Your task to perform on an android device: Go to calendar. Show me events next week Image 0: 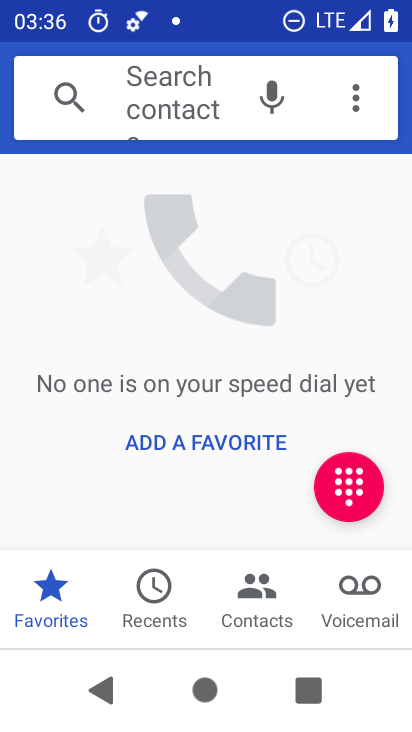
Step 0: drag from (187, 535) to (187, 420)
Your task to perform on an android device: Go to calendar. Show me events next week Image 1: 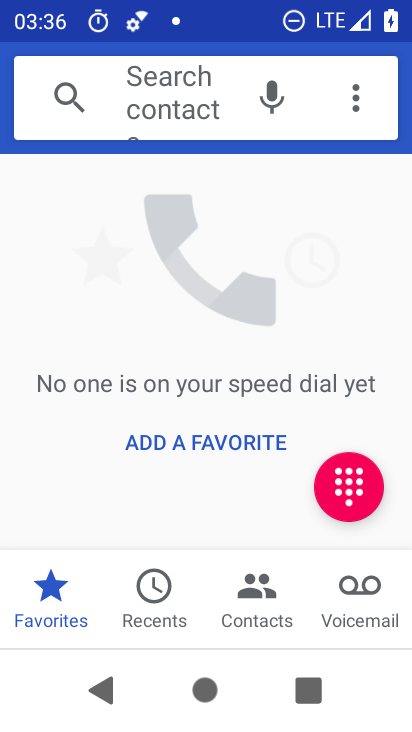
Step 1: press home button
Your task to perform on an android device: Go to calendar. Show me events next week Image 2: 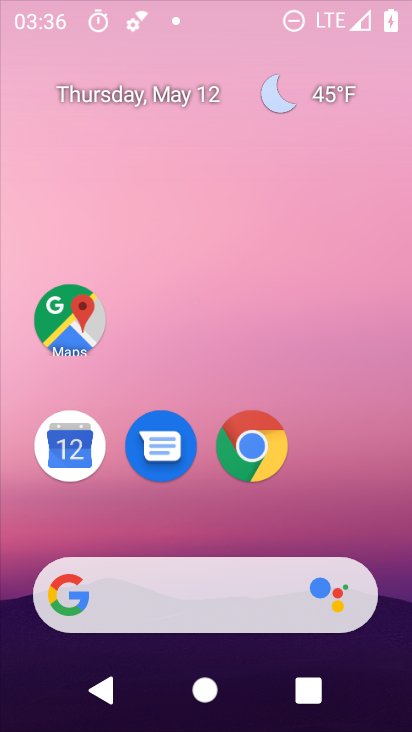
Step 2: drag from (184, 534) to (152, 135)
Your task to perform on an android device: Go to calendar. Show me events next week Image 3: 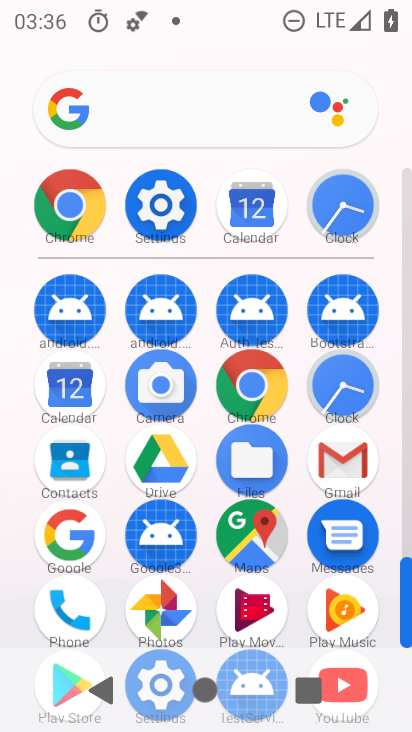
Step 3: click (68, 378)
Your task to perform on an android device: Go to calendar. Show me events next week Image 4: 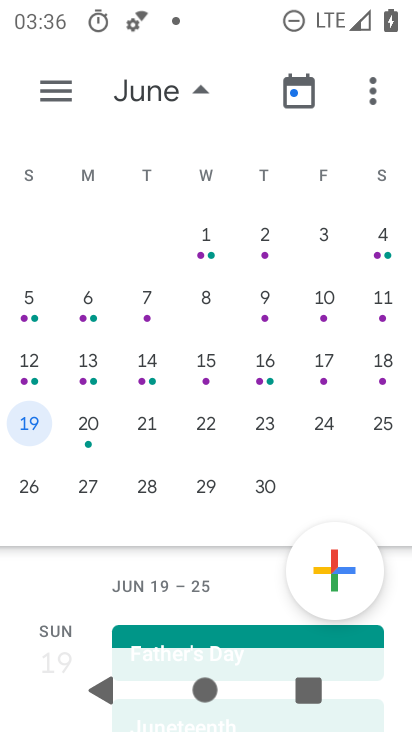
Step 4: drag from (231, 505) to (260, 202)
Your task to perform on an android device: Go to calendar. Show me events next week Image 5: 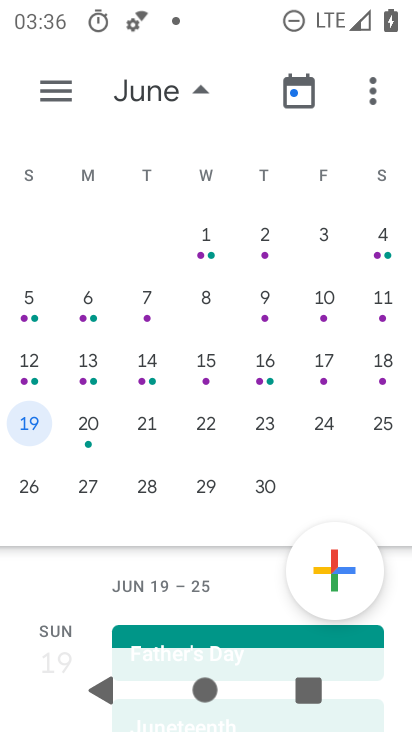
Step 5: drag from (223, 594) to (226, 300)
Your task to perform on an android device: Go to calendar. Show me events next week Image 6: 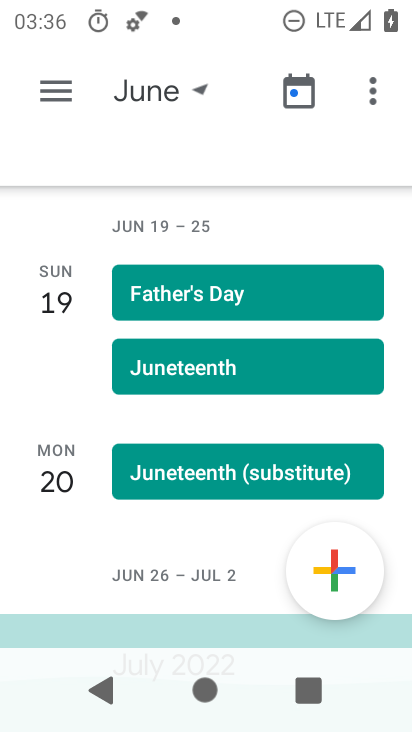
Step 6: drag from (85, 178) to (384, 173)
Your task to perform on an android device: Go to calendar. Show me events next week Image 7: 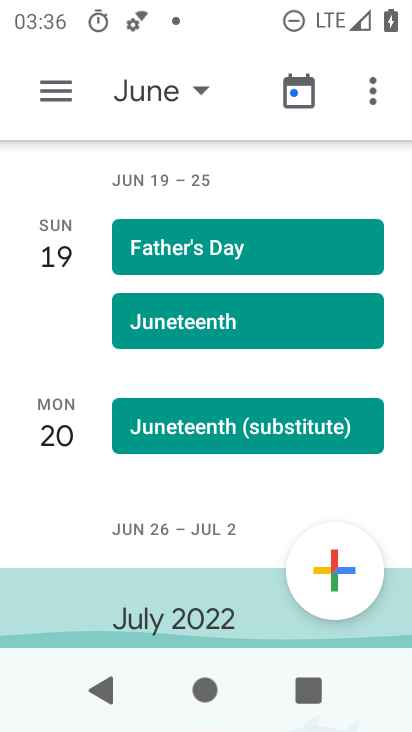
Step 7: drag from (217, 234) to (223, 466)
Your task to perform on an android device: Go to calendar. Show me events next week Image 8: 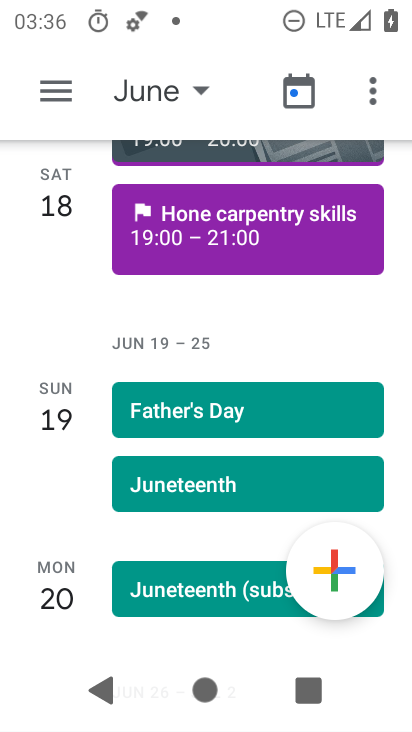
Step 8: click (200, 90)
Your task to perform on an android device: Go to calendar. Show me events next week Image 9: 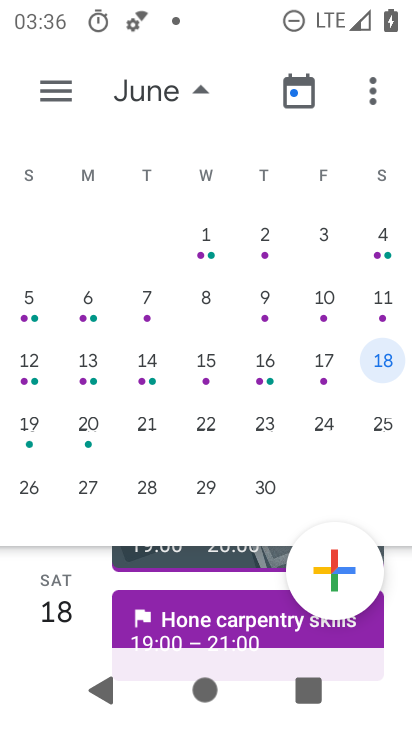
Step 9: drag from (55, 253) to (375, 286)
Your task to perform on an android device: Go to calendar. Show me events next week Image 10: 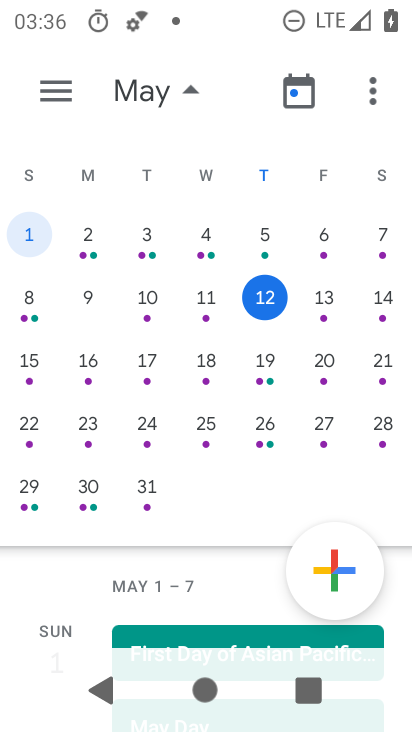
Step 10: drag from (213, 602) to (260, 225)
Your task to perform on an android device: Go to calendar. Show me events next week Image 11: 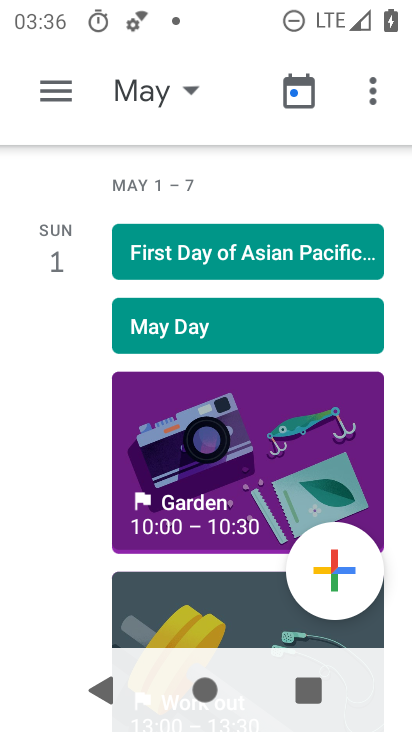
Step 11: drag from (199, 549) to (274, 173)
Your task to perform on an android device: Go to calendar. Show me events next week Image 12: 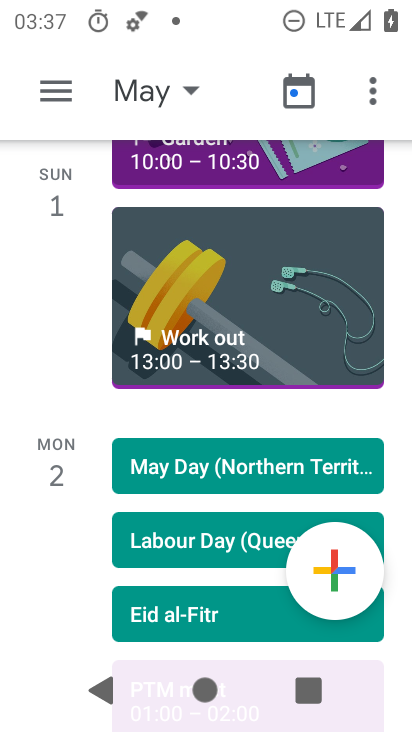
Step 12: drag from (216, 524) to (265, 238)
Your task to perform on an android device: Go to calendar. Show me events next week Image 13: 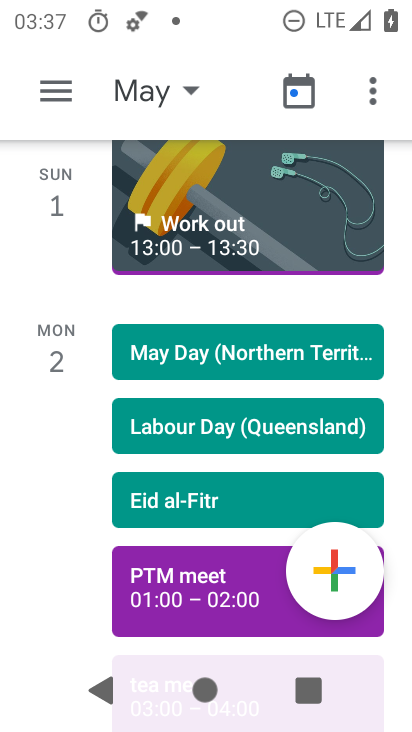
Step 13: drag from (200, 594) to (252, 327)
Your task to perform on an android device: Go to calendar. Show me events next week Image 14: 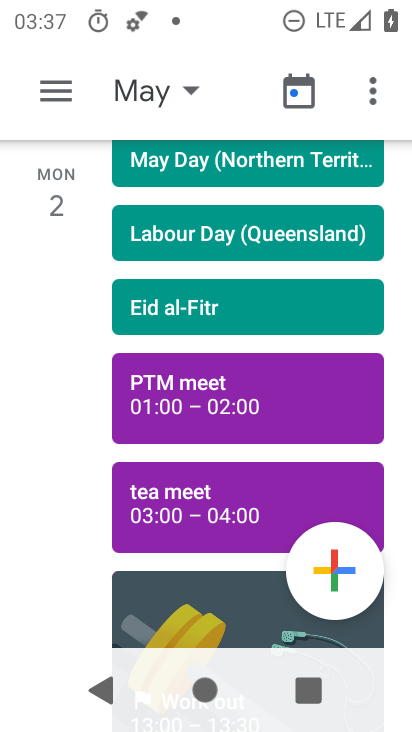
Step 14: drag from (194, 463) to (272, 140)
Your task to perform on an android device: Go to calendar. Show me events next week Image 15: 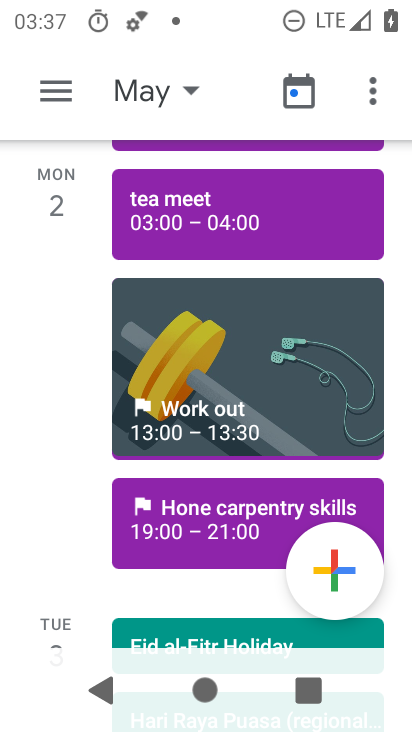
Step 15: drag from (181, 515) to (206, 184)
Your task to perform on an android device: Go to calendar. Show me events next week Image 16: 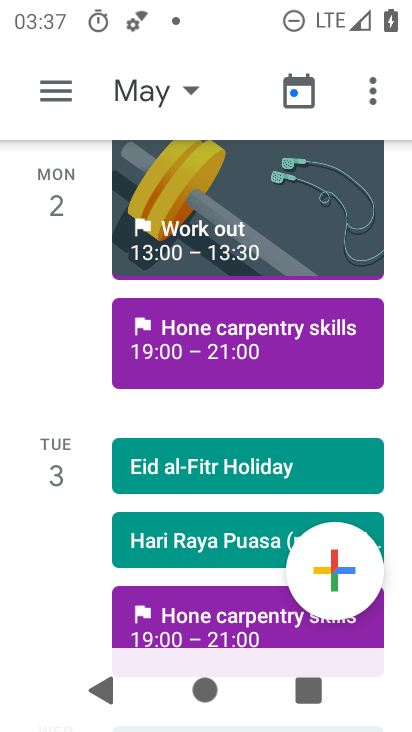
Step 16: click (176, 106)
Your task to perform on an android device: Go to calendar. Show me events next week Image 17: 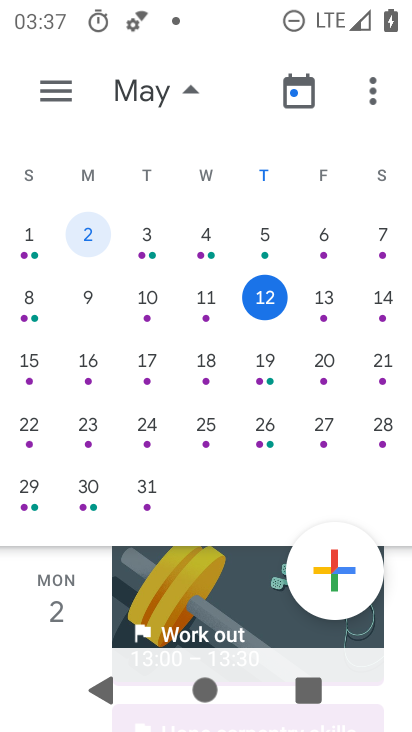
Step 17: click (366, 364)
Your task to perform on an android device: Go to calendar. Show me events next week Image 18: 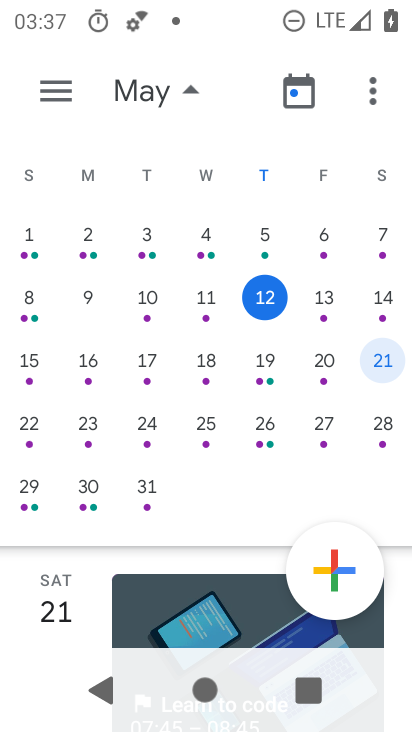
Step 18: click (30, 354)
Your task to perform on an android device: Go to calendar. Show me events next week Image 19: 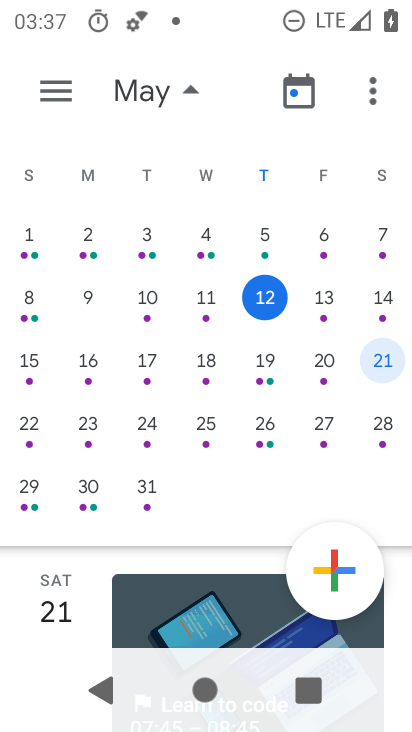
Step 19: click (38, 361)
Your task to perform on an android device: Go to calendar. Show me events next week Image 20: 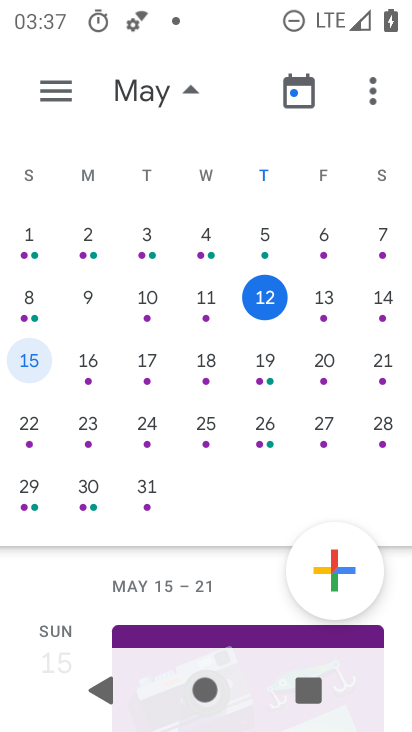
Step 20: task complete